Your task to perform on an android device: Is it going to rain this weekend? Image 0: 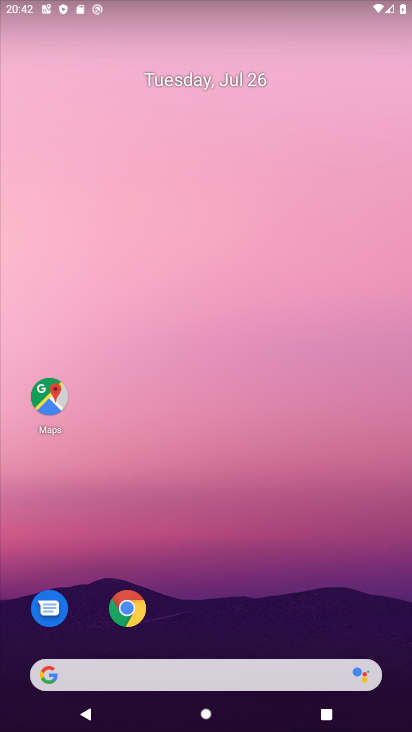
Step 0: click (88, 676)
Your task to perform on an android device: Is it going to rain this weekend? Image 1: 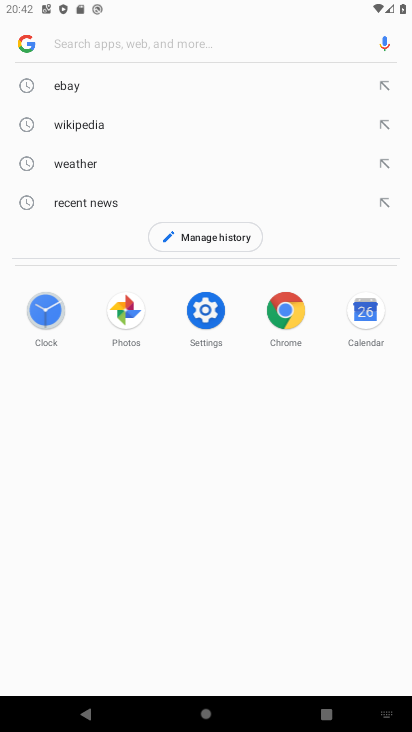
Step 1: type "Is it going to rain this weekend?"
Your task to perform on an android device: Is it going to rain this weekend? Image 2: 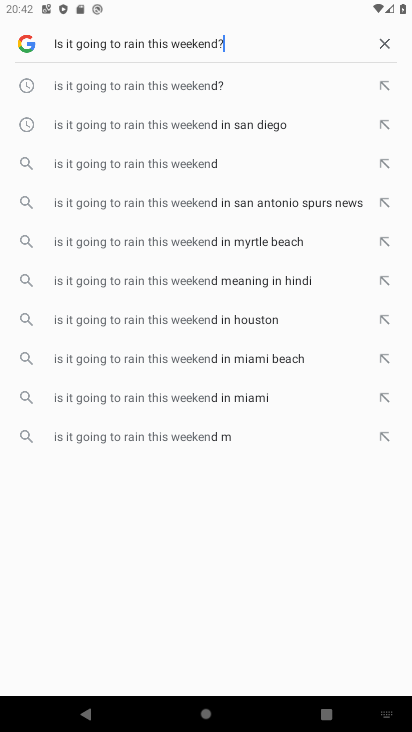
Step 2: type ""
Your task to perform on an android device: Is it going to rain this weekend? Image 3: 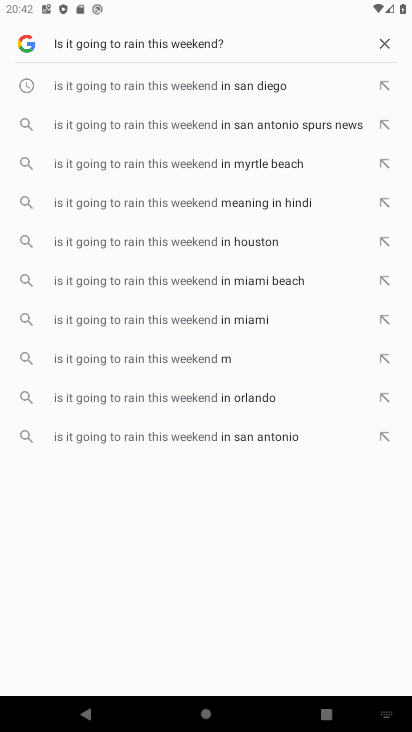
Step 3: type ""
Your task to perform on an android device: Is it going to rain this weekend? Image 4: 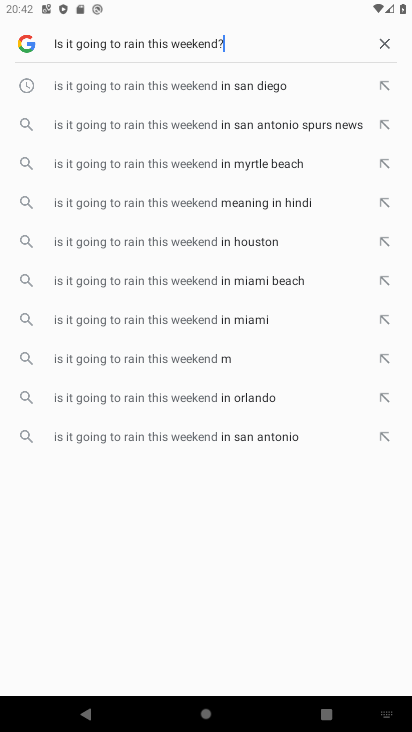
Step 4: type ""
Your task to perform on an android device: Is it going to rain this weekend? Image 5: 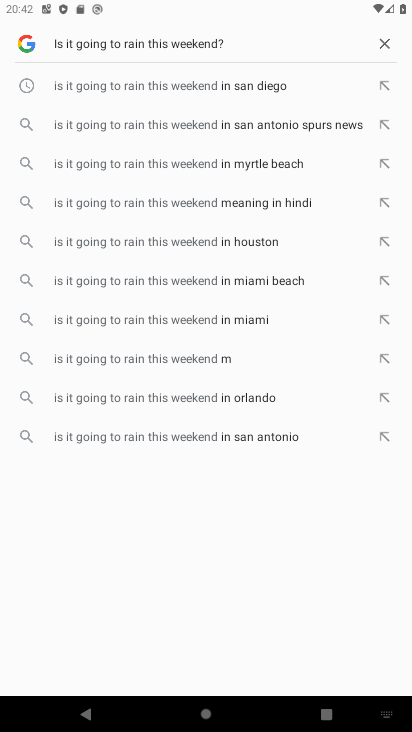
Step 5: type ""
Your task to perform on an android device: Is it going to rain this weekend? Image 6: 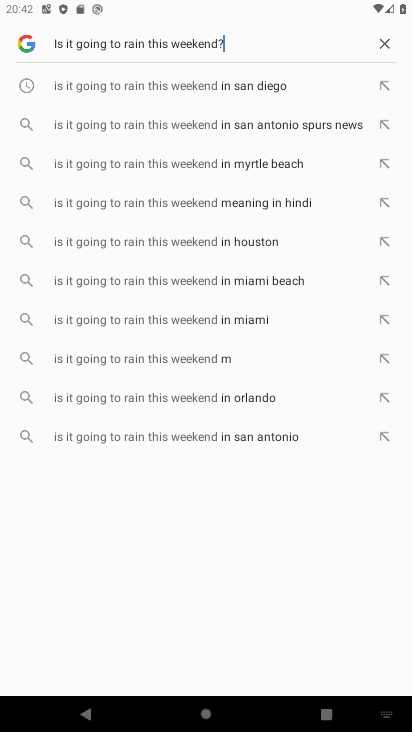
Step 6: type ""
Your task to perform on an android device: Is it going to rain this weekend? Image 7: 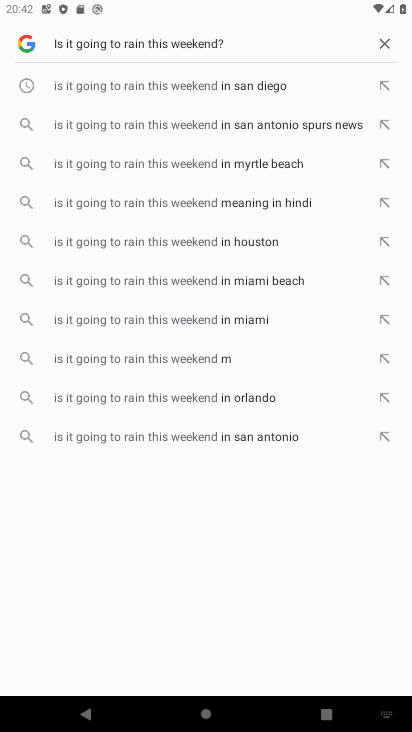
Step 7: task complete